Your task to perform on an android device: What is the recent news? Image 0: 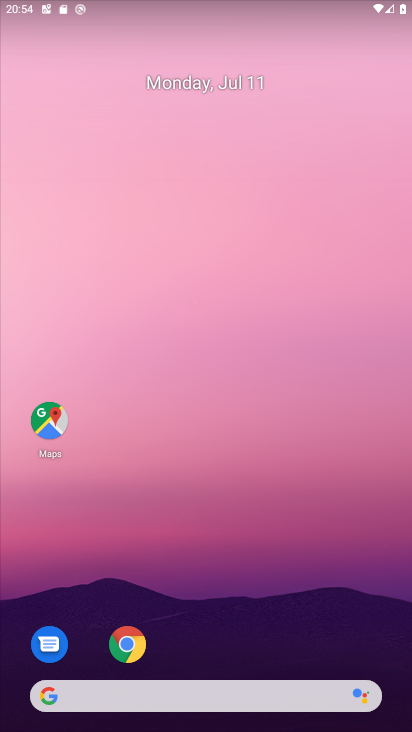
Step 0: drag from (225, 660) to (221, 154)
Your task to perform on an android device: What is the recent news? Image 1: 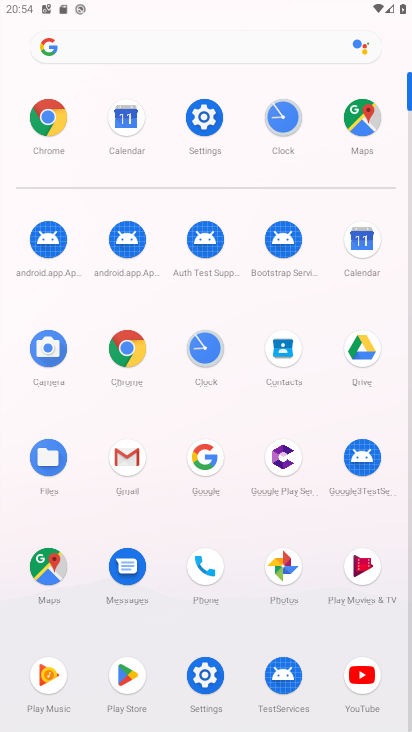
Step 1: click (125, 344)
Your task to perform on an android device: What is the recent news? Image 2: 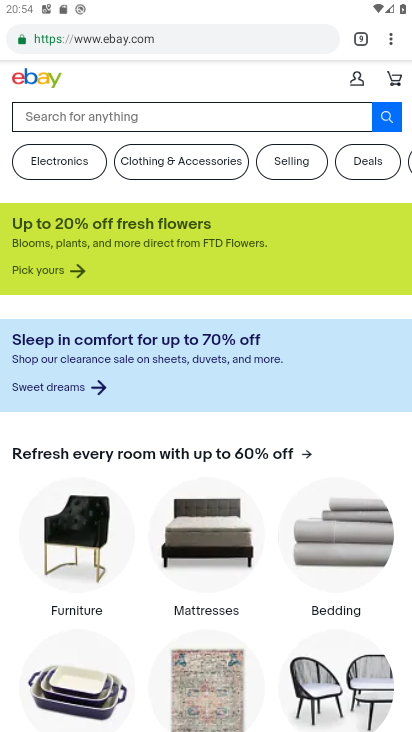
Step 2: click (401, 29)
Your task to perform on an android device: What is the recent news? Image 3: 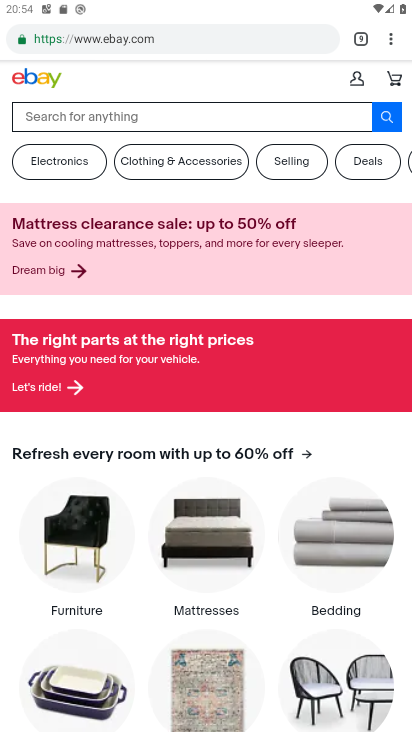
Step 3: click (401, 33)
Your task to perform on an android device: What is the recent news? Image 4: 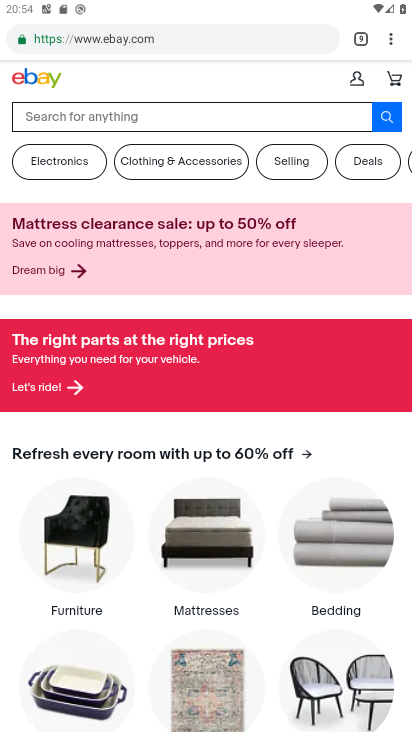
Step 4: click (397, 34)
Your task to perform on an android device: What is the recent news? Image 5: 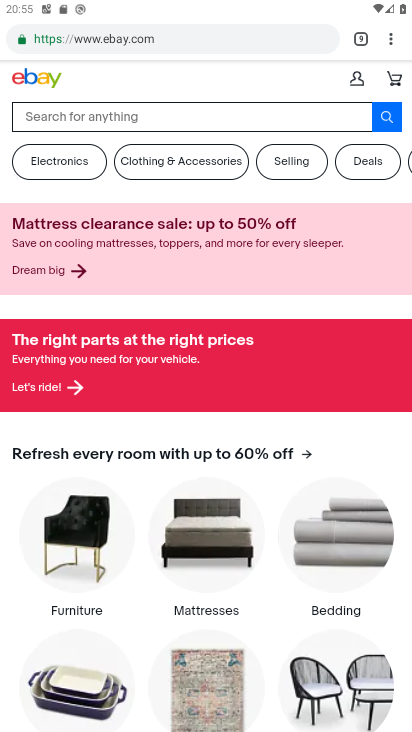
Step 5: click (389, 40)
Your task to perform on an android device: What is the recent news? Image 6: 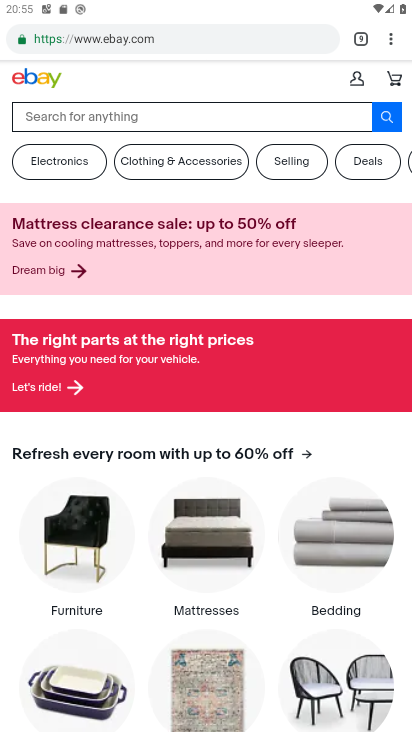
Step 6: click (389, 40)
Your task to perform on an android device: What is the recent news? Image 7: 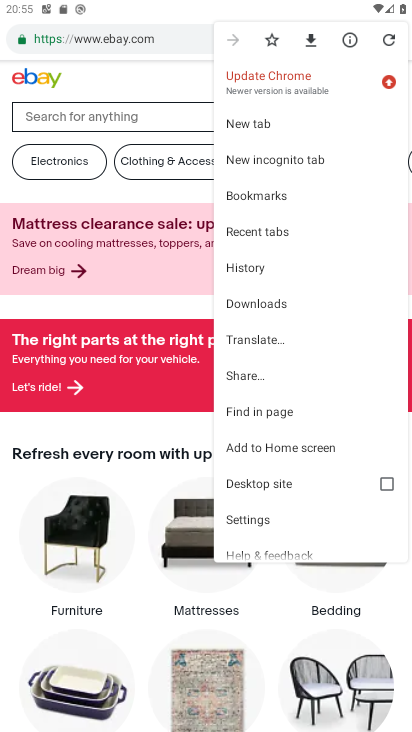
Step 7: click (240, 129)
Your task to perform on an android device: What is the recent news? Image 8: 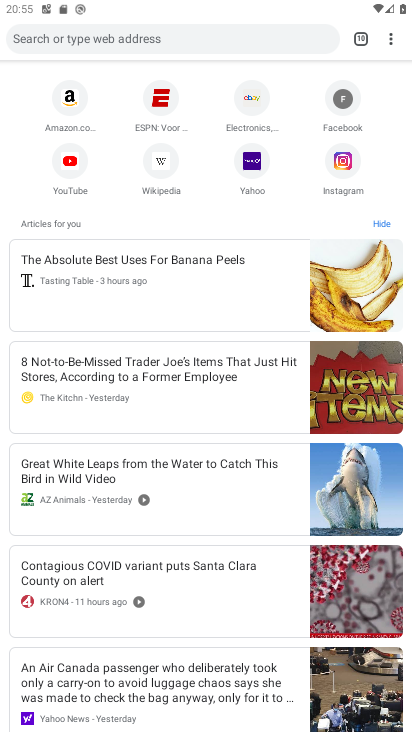
Step 8: click (138, 29)
Your task to perform on an android device: What is the recent news? Image 9: 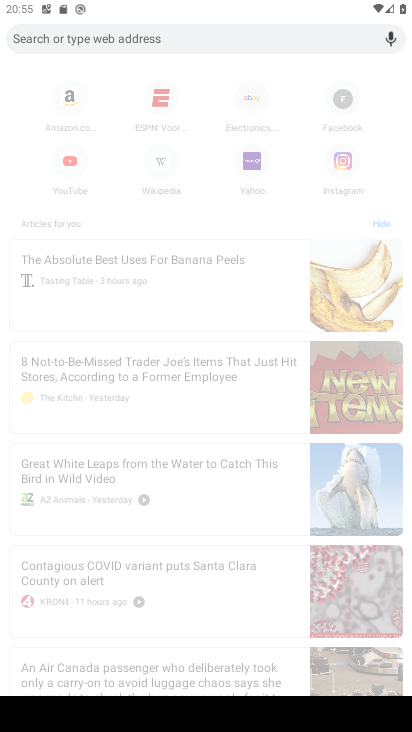
Step 9: type "What is the recent news "
Your task to perform on an android device: What is the recent news? Image 10: 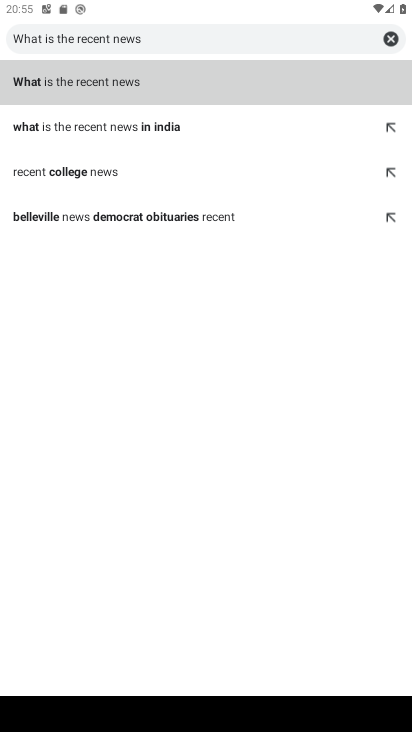
Step 10: click (168, 67)
Your task to perform on an android device: What is the recent news? Image 11: 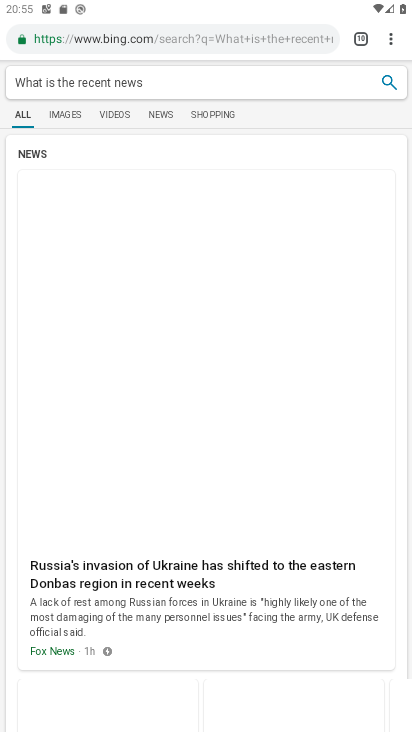
Step 11: task complete